Your task to perform on an android device: Open Google Maps and go to "Timeline" Image 0: 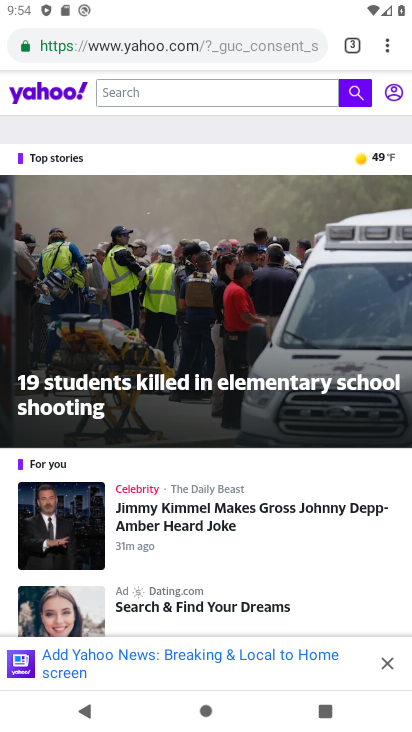
Step 0: press home button
Your task to perform on an android device: Open Google Maps and go to "Timeline" Image 1: 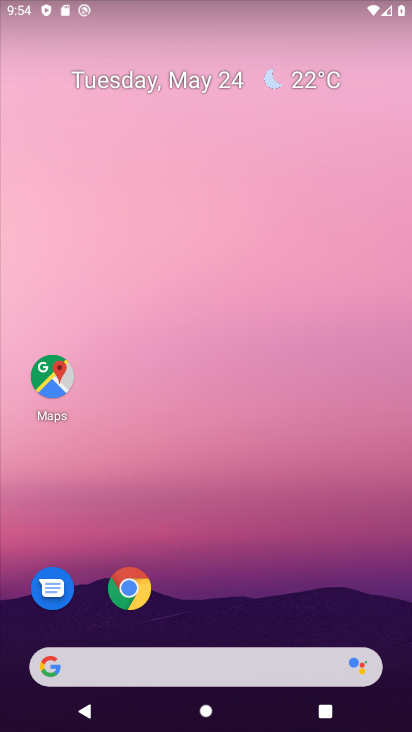
Step 1: click (54, 379)
Your task to perform on an android device: Open Google Maps and go to "Timeline" Image 2: 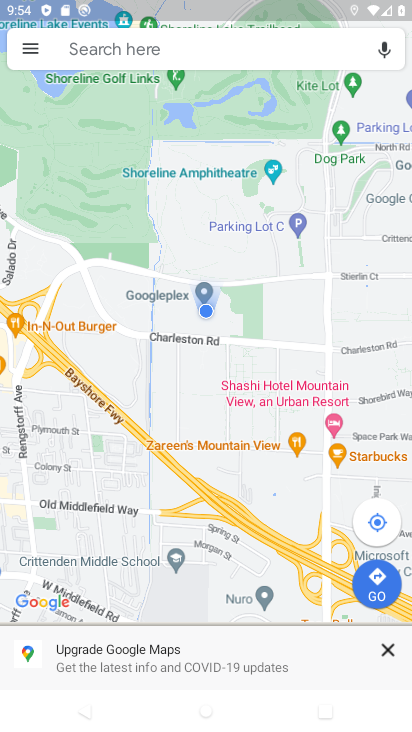
Step 2: click (27, 47)
Your task to perform on an android device: Open Google Maps and go to "Timeline" Image 3: 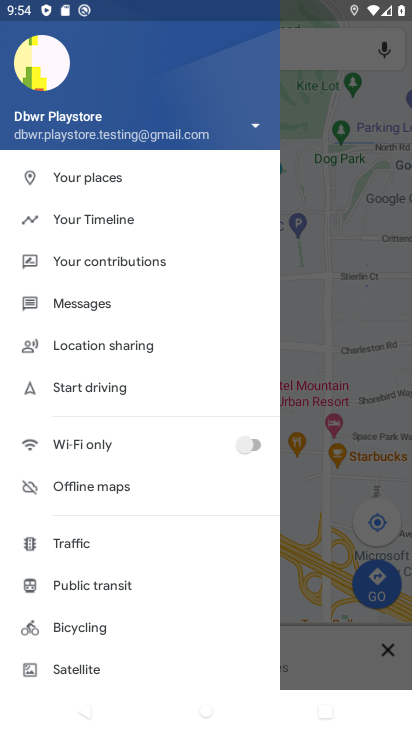
Step 3: click (114, 226)
Your task to perform on an android device: Open Google Maps and go to "Timeline" Image 4: 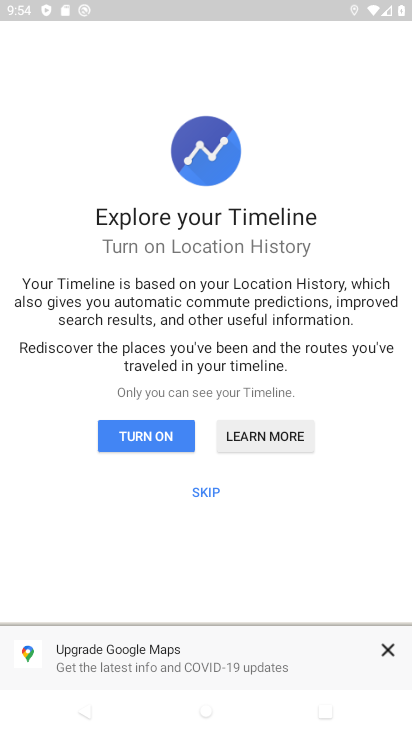
Step 4: click (144, 437)
Your task to perform on an android device: Open Google Maps and go to "Timeline" Image 5: 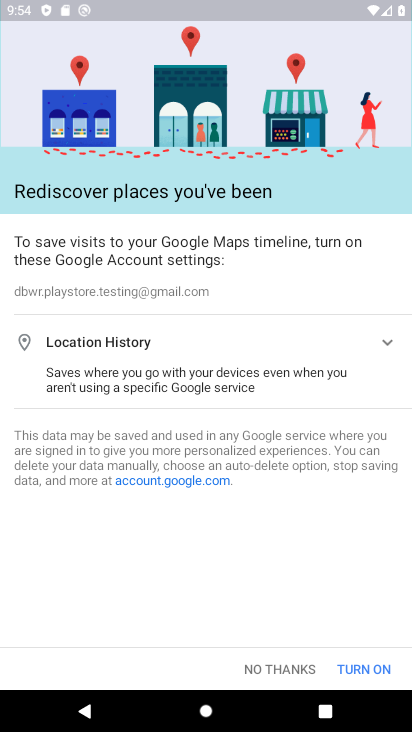
Step 5: click (388, 667)
Your task to perform on an android device: Open Google Maps and go to "Timeline" Image 6: 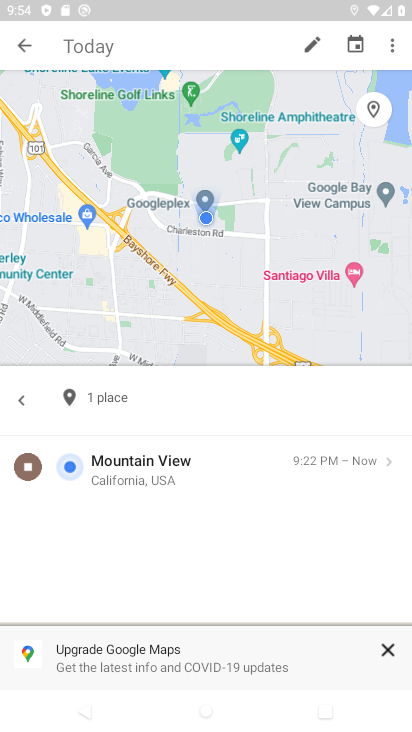
Step 6: task complete